Your task to perform on an android device: set an alarm Image 0: 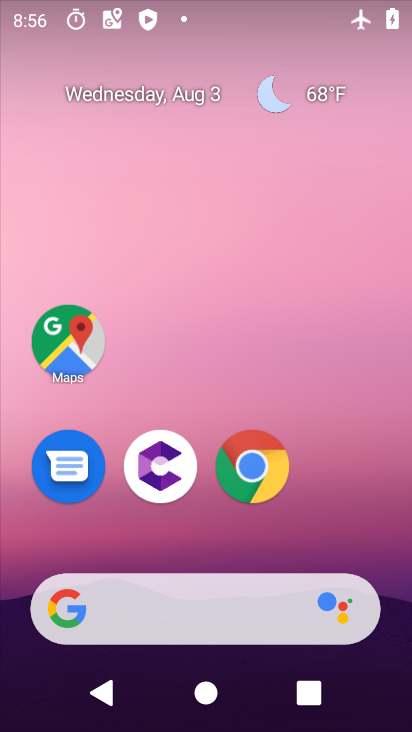
Step 0: drag from (306, 511) to (338, 90)
Your task to perform on an android device: set an alarm Image 1: 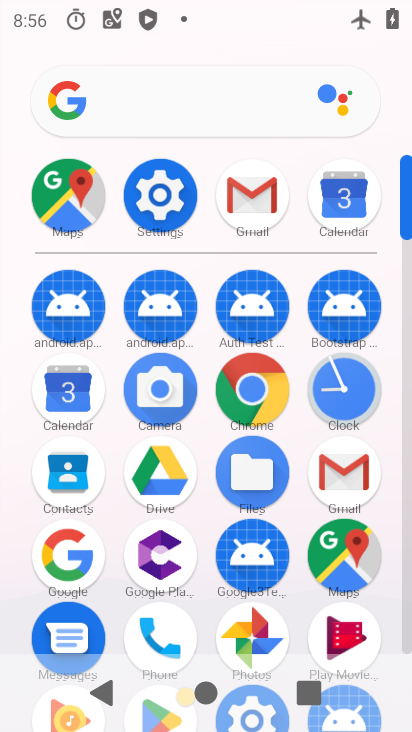
Step 1: click (331, 391)
Your task to perform on an android device: set an alarm Image 2: 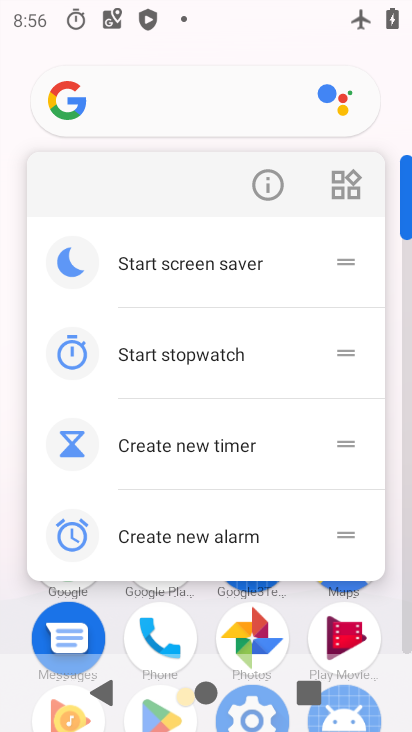
Step 2: click (398, 110)
Your task to perform on an android device: set an alarm Image 3: 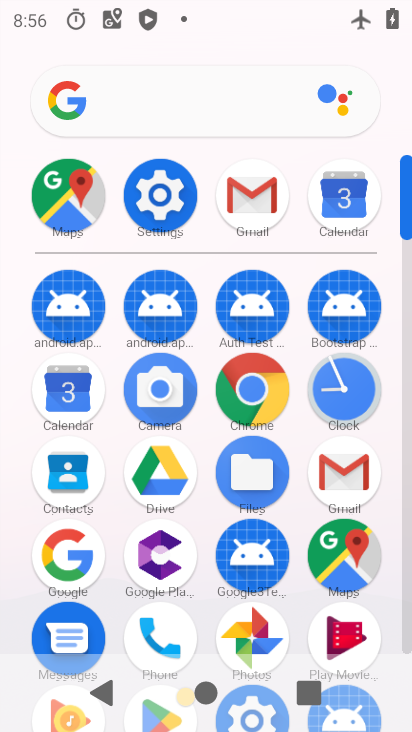
Step 3: click (341, 403)
Your task to perform on an android device: set an alarm Image 4: 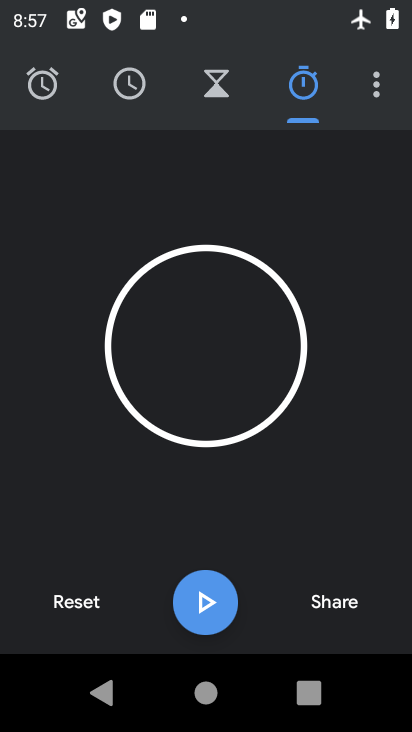
Step 4: click (29, 92)
Your task to perform on an android device: set an alarm Image 5: 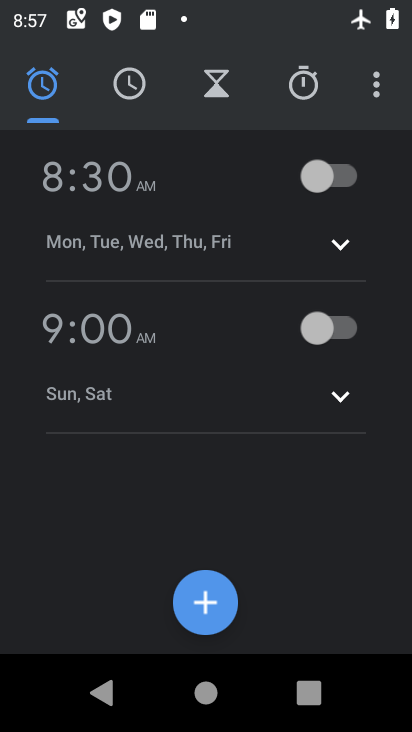
Step 5: click (192, 598)
Your task to perform on an android device: set an alarm Image 6: 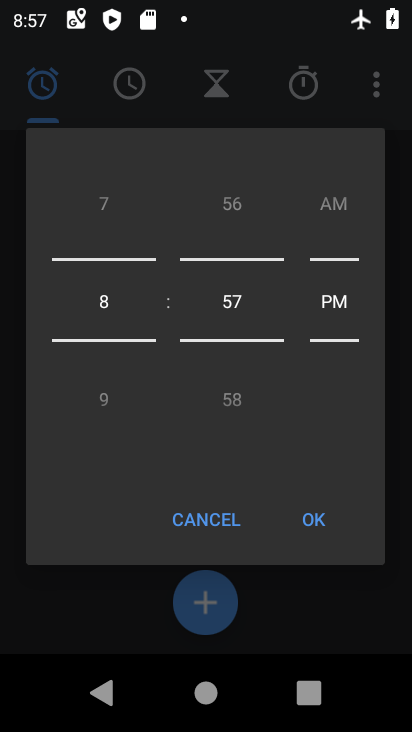
Step 6: click (334, 525)
Your task to perform on an android device: set an alarm Image 7: 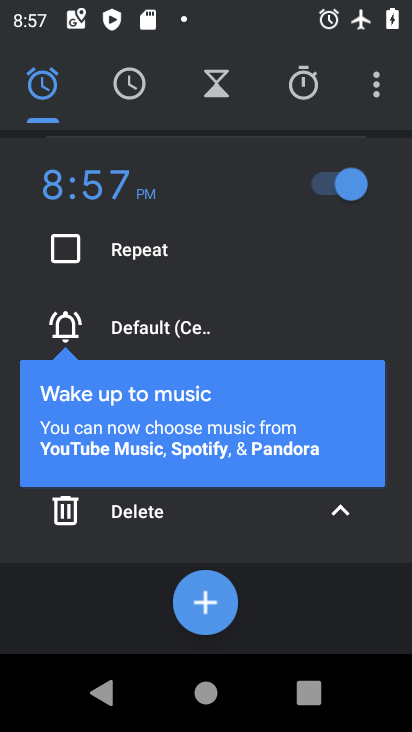
Step 7: task complete